Your task to perform on an android device: open the mobile data screen to see how much data has been used Image 0: 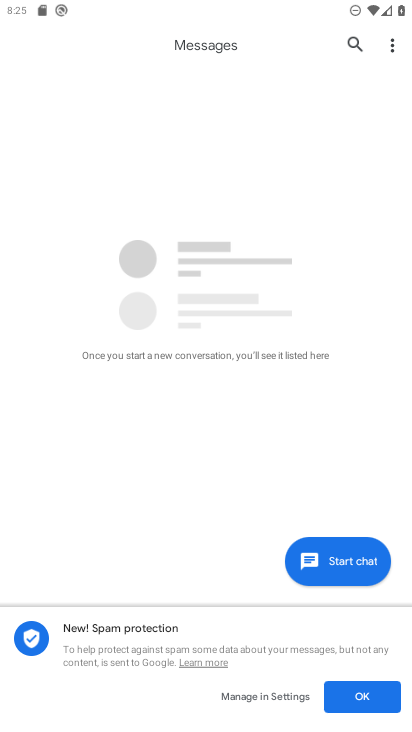
Step 0: press home button
Your task to perform on an android device: open the mobile data screen to see how much data has been used Image 1: 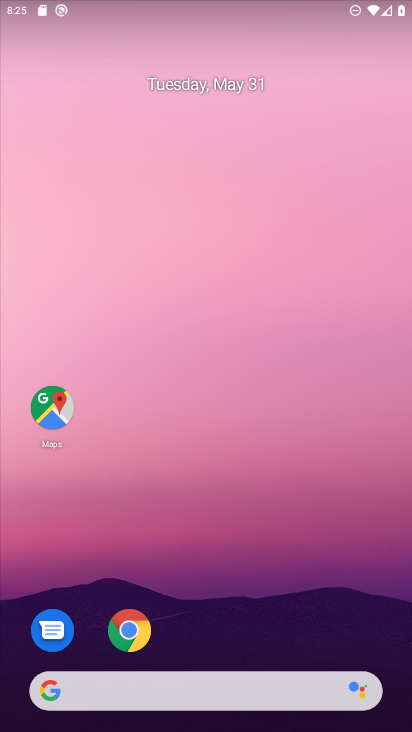
Step 1: drag from (301, 623) to (281, 116)
Your task to perform on an android device: open the mobile data screen to see how much data has been used Image 2: 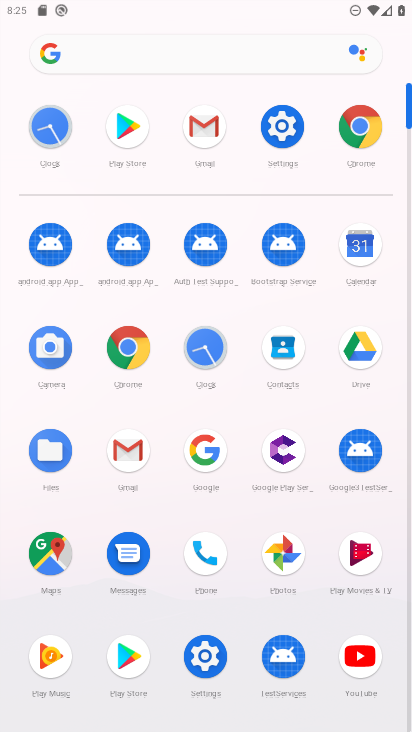
Step 2: click (284, 118)
Your task to perform on an android device: open the mobile data screen to see how much data has been used Image 3: 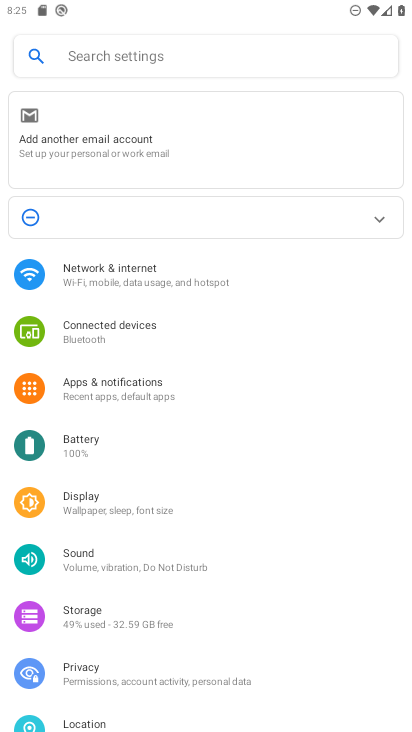
Step 3: click (102, 278)
Your task to perform on an android device: open the mobile data screen to see how much data has been used Image 4: 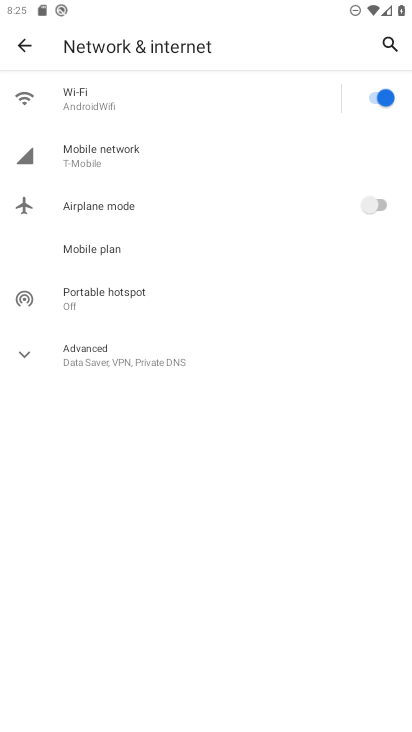
Step 4: click (106, 147)
Your task to perform on an android device: open the mobile data screen to see how much data has been used Image 5: 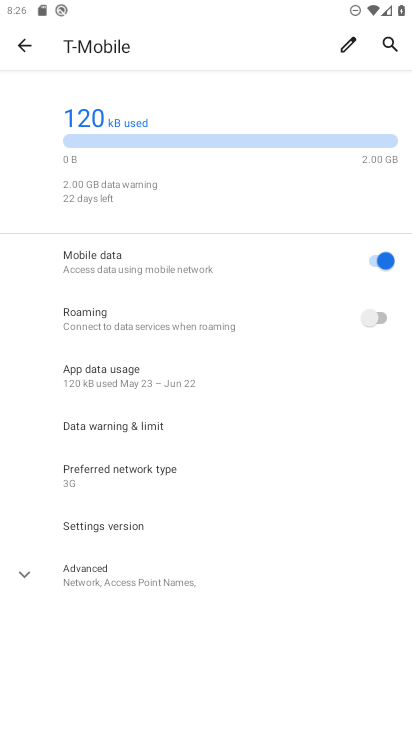
Step 5: task complete